Your task to perform on an android device: open chrome and create a bookmark for the current page Image 0: 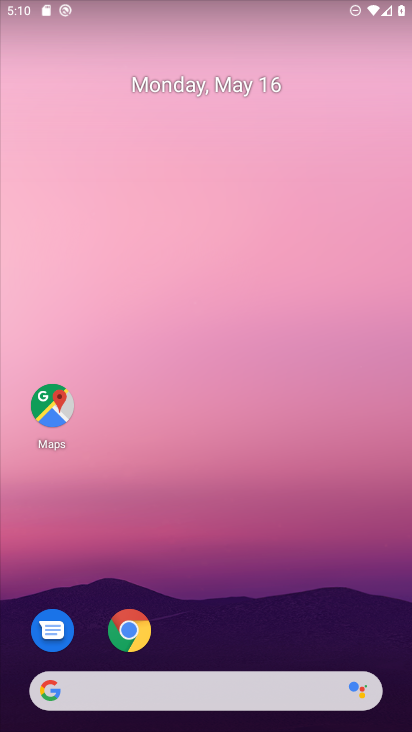
Step 0: press home button
Your task to perform on an android device: open chrome and create a bookmark for the current page Image 1: 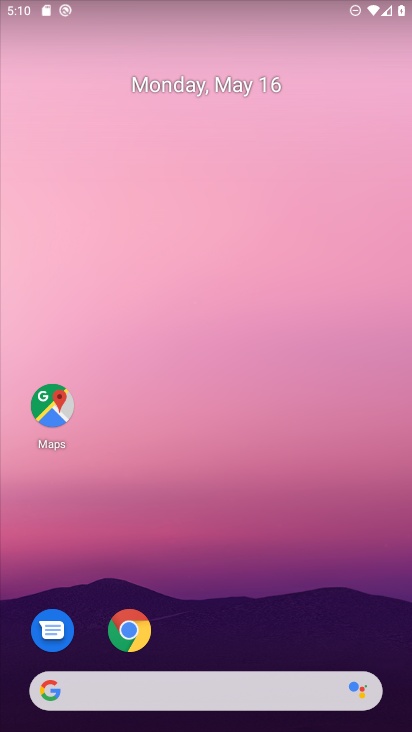
Step 1: click (151, 628)
Your task to perform on an android device: open chrome and create a bookmark for the current page Image 2: 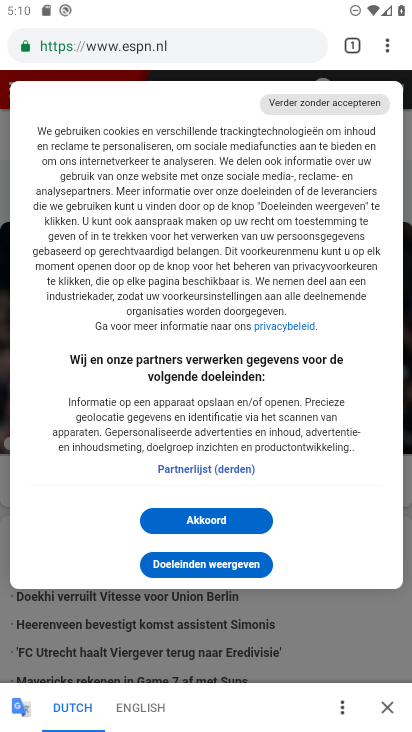
Step 2: task complete